Your task to perform on an android device: read, delete, or share a saved page in the chrome app Image 0: 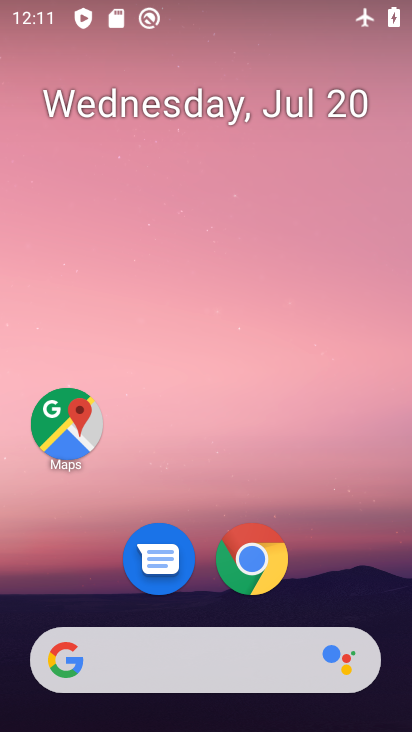
Step 0: drag from (367, 603) to (362, 154)
Your task to perform on an android device: read, delete, or share a saved page in the chrome app Image 1: 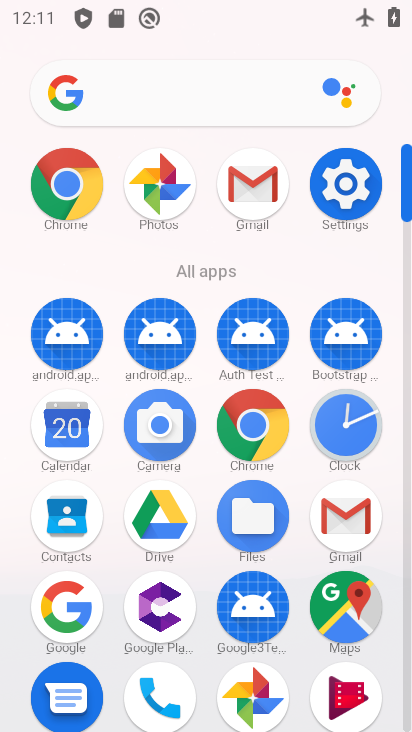
Step 1: click (272, 425)
Your task to perform on an android device: read, delete, or share a saved page in the chrome app Image 2: 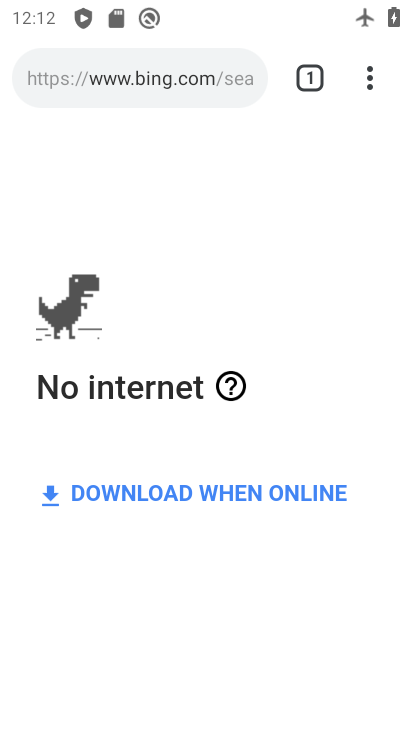
Step 2: click (373, 82)
Your task to perform on an android device: read, delete, or share a saved page in the chrome app Image 3: 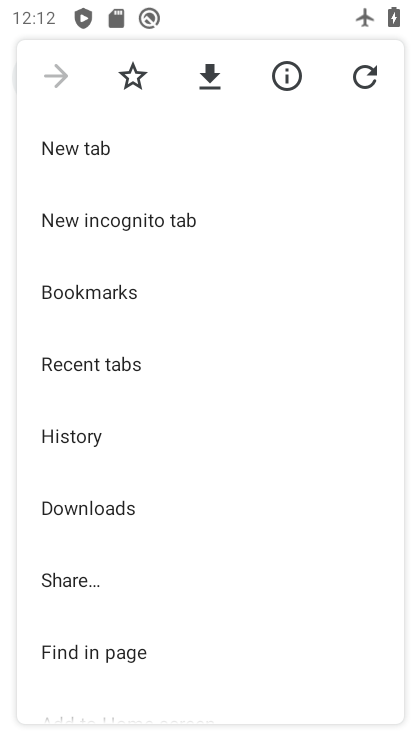
Step 3: click (179, 511)
Your task to perform on an android device: read, delete, or share a saved page in the chrome app Image 4: 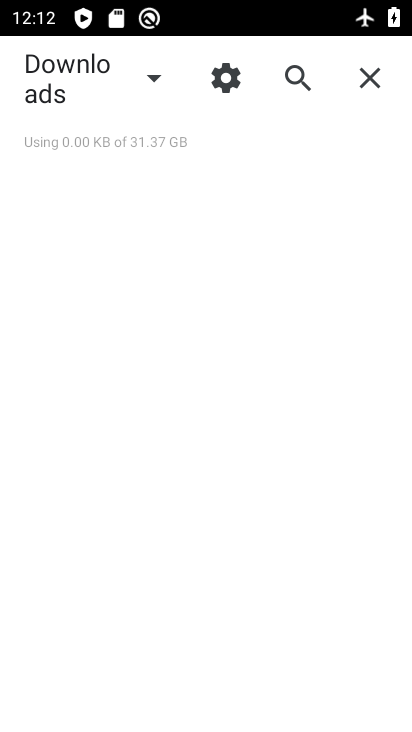
Step 4: click (157, 89)
Your task to perform on an android device: read, delete, or share a saved page in the chrome app Image 5: 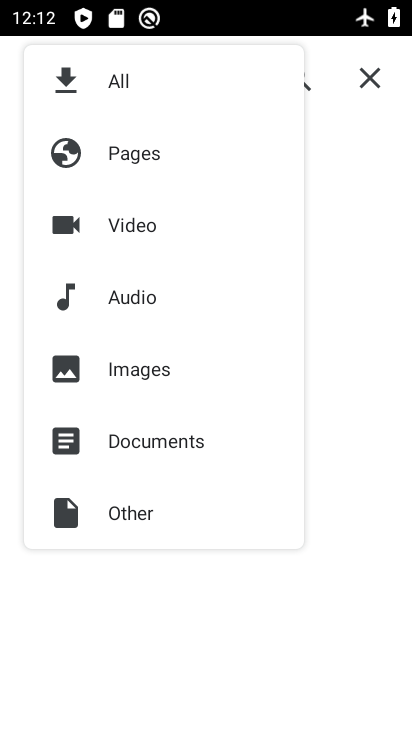
Step 5: click (167, 149)
Your task to perform on an android device: read, delete, or share a saved page in the chrome app Image 6: 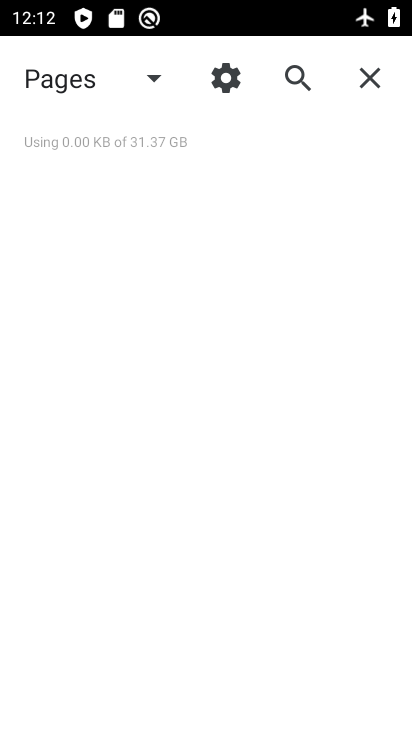
Step 6: task complete